Your task to perform on an android device: Open Google Image 0: 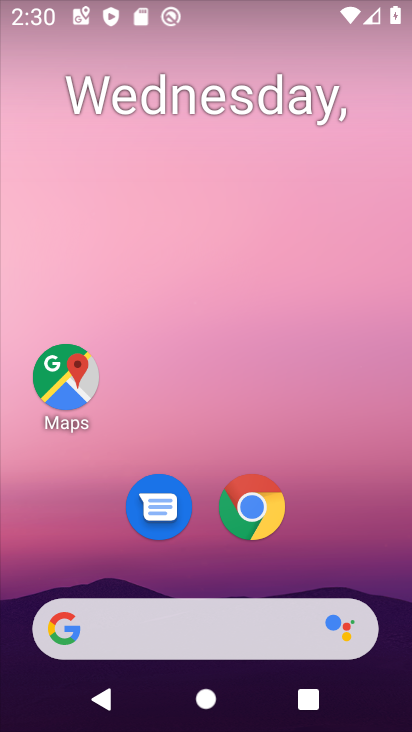
Step 0: drag from (317, 552) to (378, 136)
Your task to perform on an android device: Open Google Image 1: 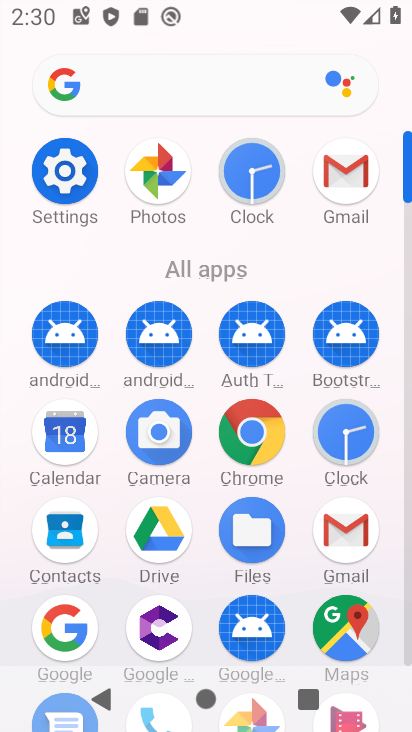
Step 1: click (59, 638)
Your task to perform on an android device: Open Google Image 2: 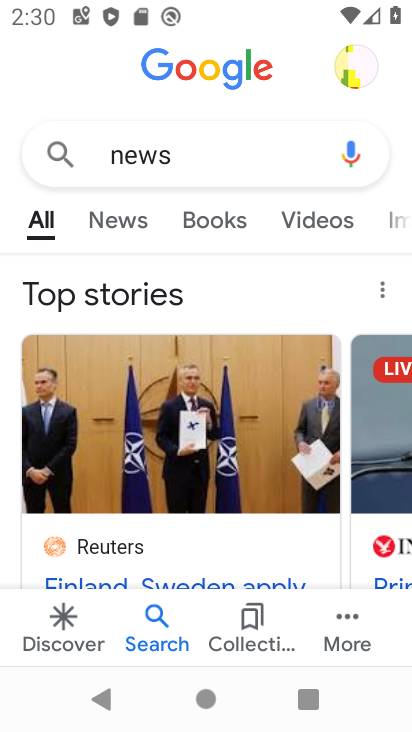
Step 2: task complete